Your task to perform on an android device: Go to Wikipedia Image 0: 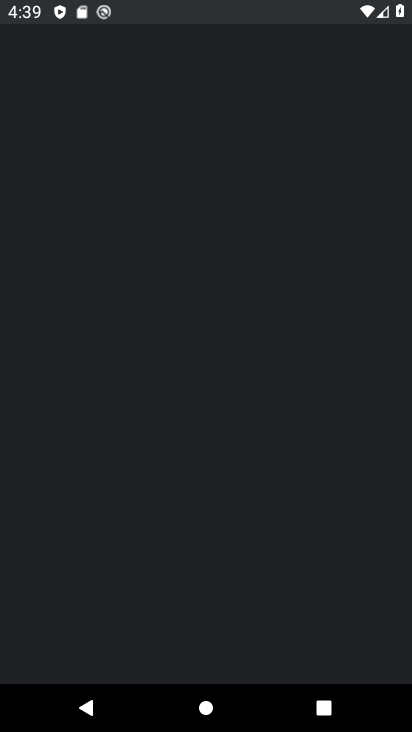
Step 0: drag from (408, 461) to (365, 417)
Your task to perform on an android device: Go to Wikipedia Image 1: 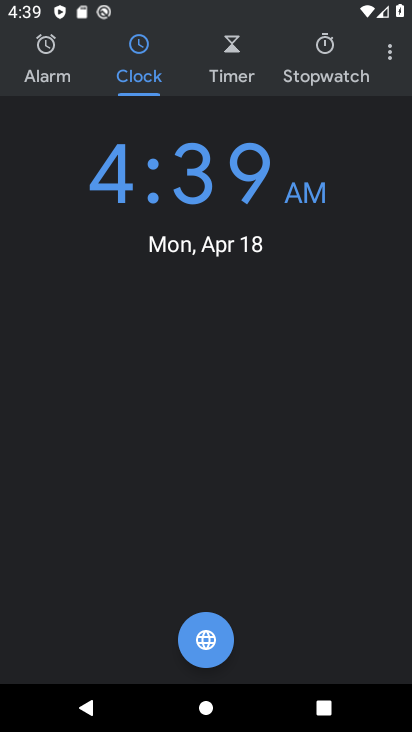
Step 1: press home button
Your task to perform on an android device: Go to Wikipedia Image 2: 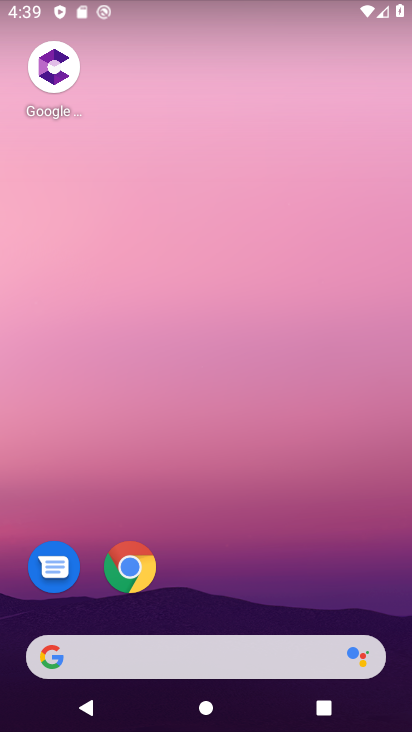
Step 2: click (129, 570)
Your task to perform on an android device: Go to Wikipedia Image 3: 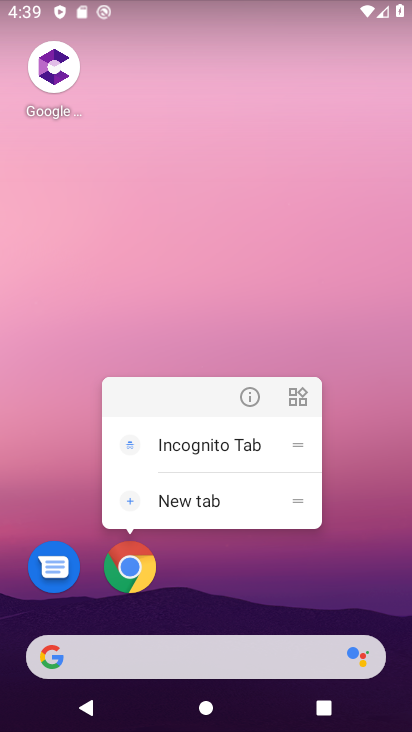
Step 3: click (183, 495)
Your task to perform on an android device: Go to Wikipedia Image 4: 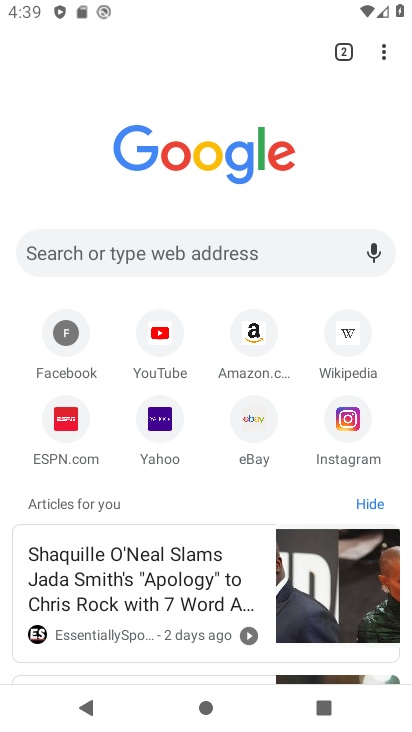
Step 4: click (347, 326)
Your task to perform on an android device: Go to Wikipedia Image 5: 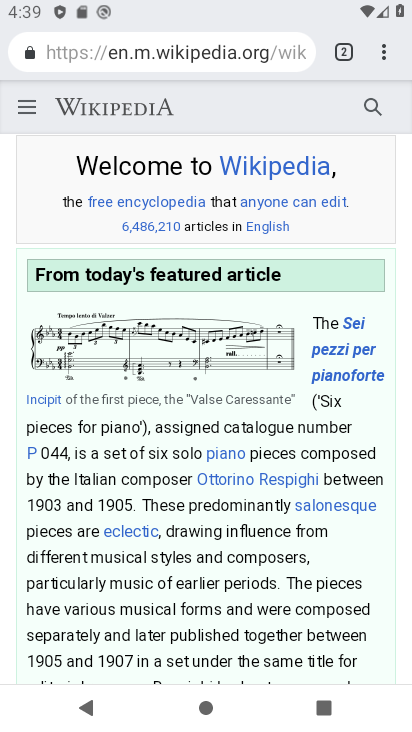
Step 5: task complete